Your task to perform on an android device: clear history in the chrome app Image 0: 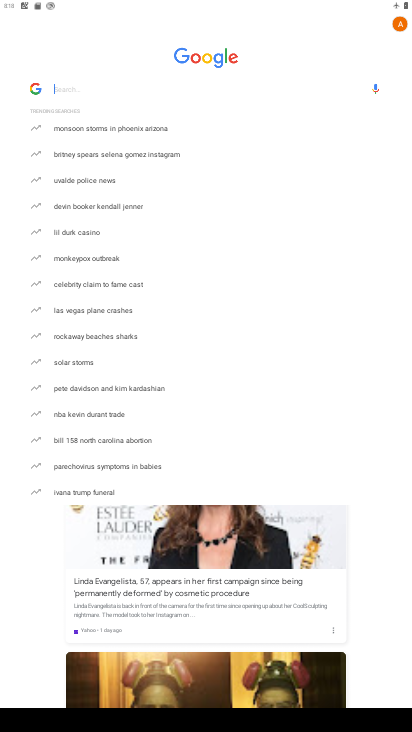
Step 0: press home button
Your task to perform on an android device: clear history in the chrome app Image 1: 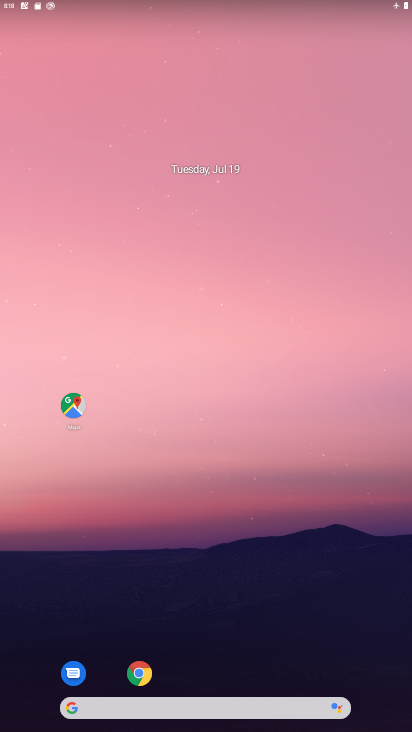
Step 1: drag from (242, 654) to (292, 111)
Your task to perform on an android device: clear history in the chrome app Image 2: 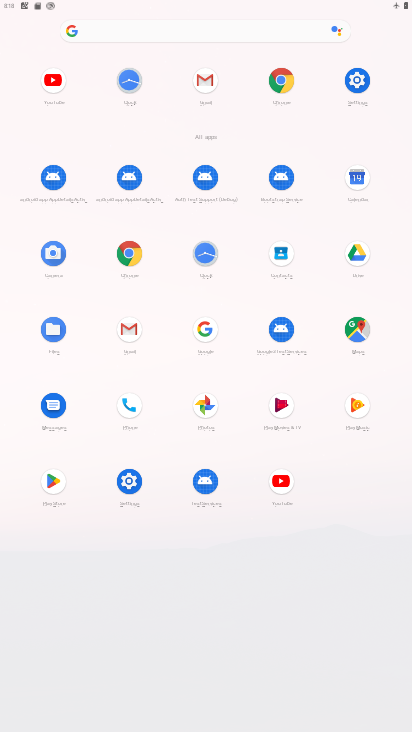
Step 2: click (121, 257)
Your task to perform on an android device: clear history in the chrome app Image 3: 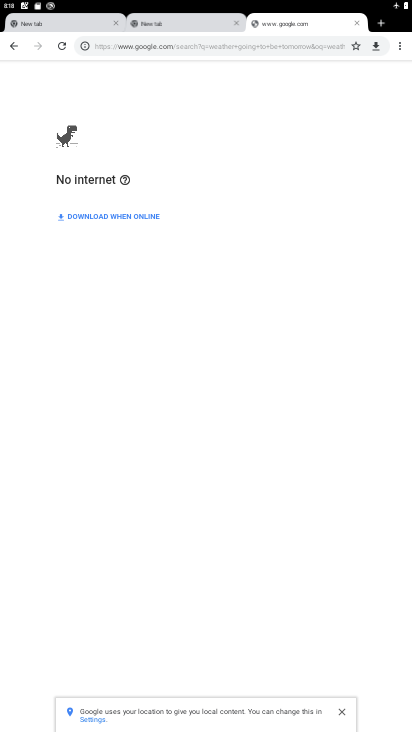
Step 3: click (399, 44)
Your task to perform on an android device: clear history in the chrome app Image 4: 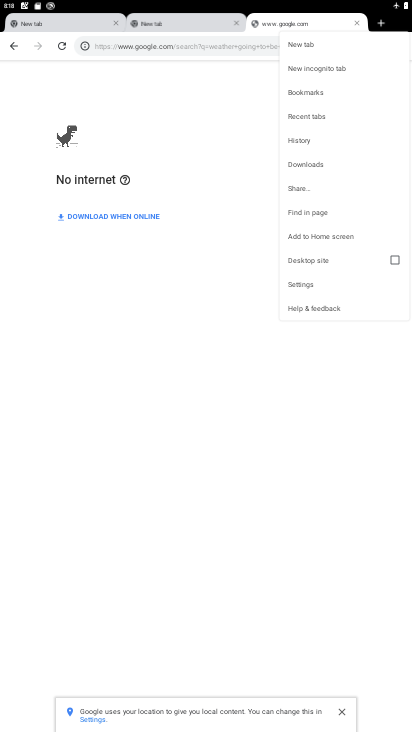
Step 4: click (315, 284)
Your task to perform on an android device: clear history in the chrome app Image 5: 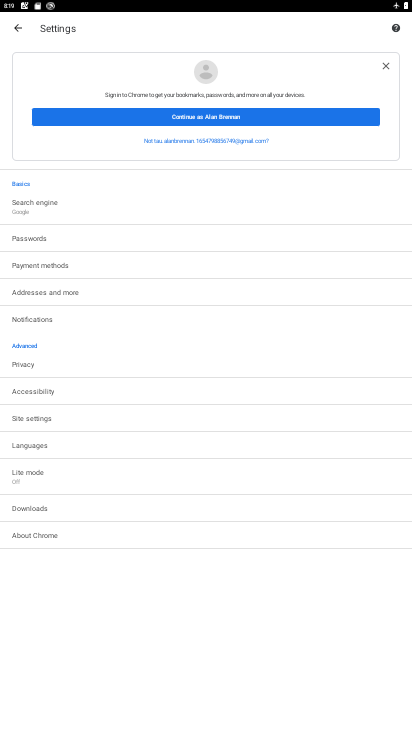
Step 5: task complete